Your task to perform on an android device: Go to Yahoo.com Image 0: 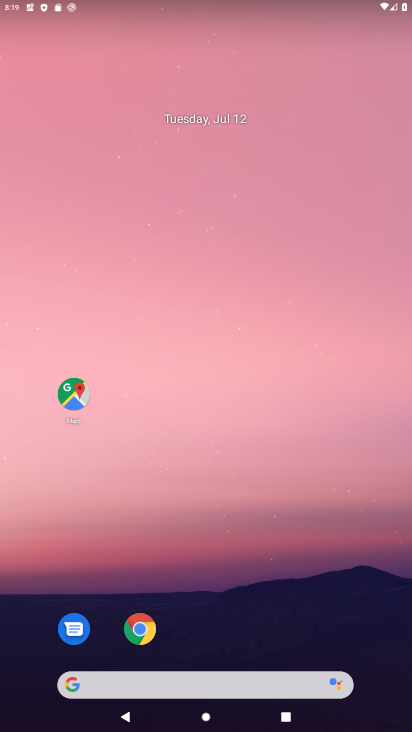
Step 0: drag from (198, 631) to (202, 254)
Your task to perform on an android device: Go to Yahoo.com Image 1: 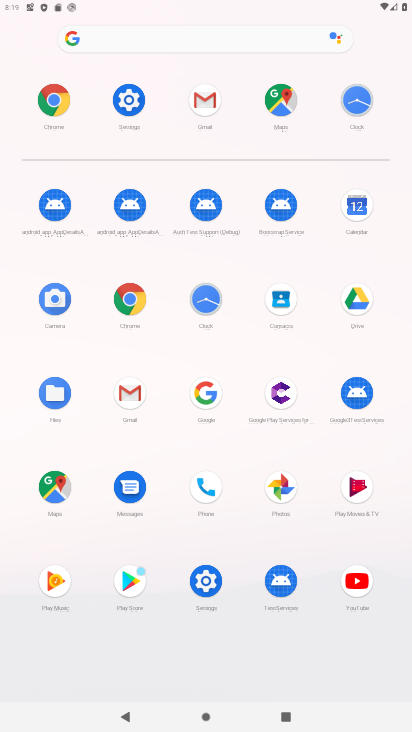
Step 1: click (138, 96)
Your task to perform on an android device: Go to Yahoo.com Image 2: 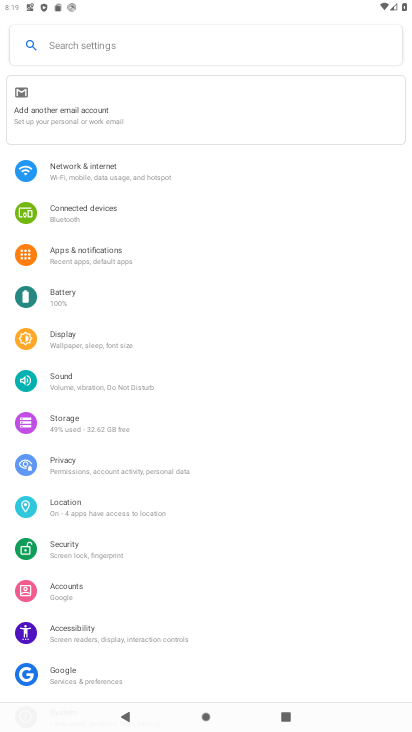
Step 2: press home button
Your task to perform on an android device: Go to Yahoo.com Image 3: 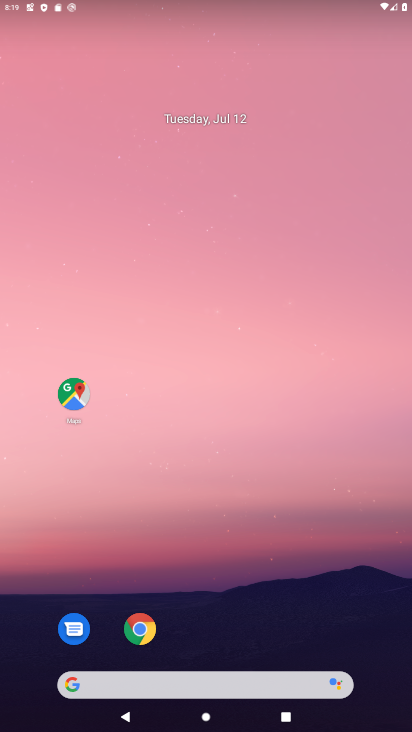
Step 3: drag from (139, 505) to (192, 185)
Your task to perform on an android device: Go to Yahoo.com Image 4: 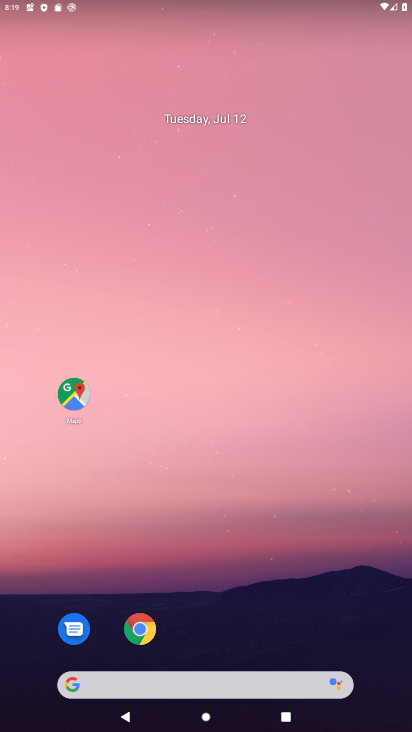
Step 4: drag from (242, 588) to (264, 220)
Your task to perform on an android device: Go to Yahoo.com Image 5: 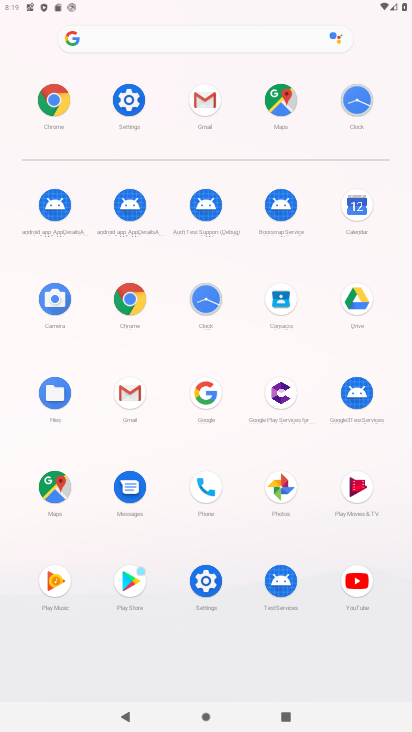
Step 5: click (54, 104)
Your task to perform on an android device: Go to Yahoo.com Image 6: 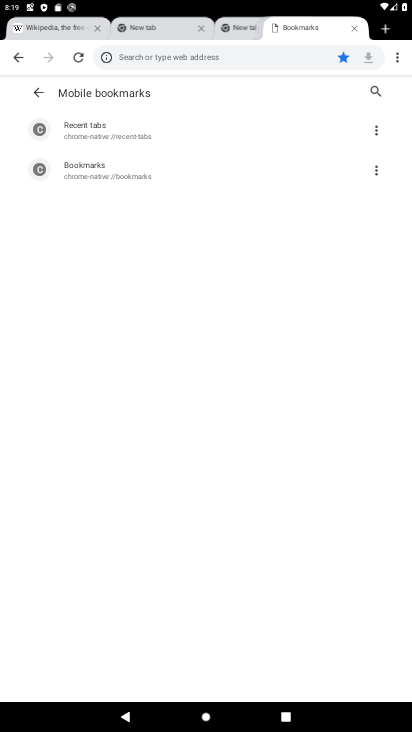
Step 6: click (352, 25)
Your task to perform on an android device: Go to Yahoo.com Image 7: 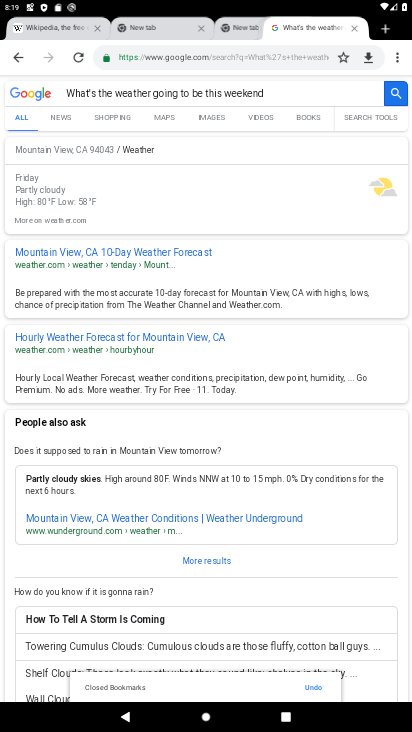
Step 7: click (387, 31)
Your task to perform on an android device: Go to Yahoo.com Image 8: 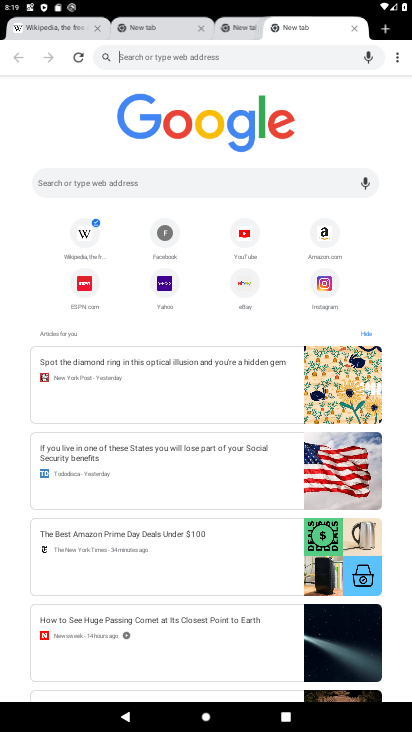
Step 8: click (158, 287)
Your task to perform on an android device: Go to Yahoo.com Image 9: 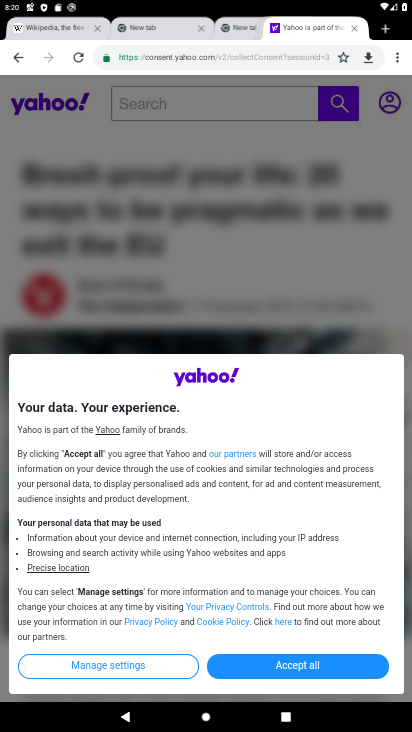
Step 9: task complete